Your task to perform on an android device: Open the map Image 0: 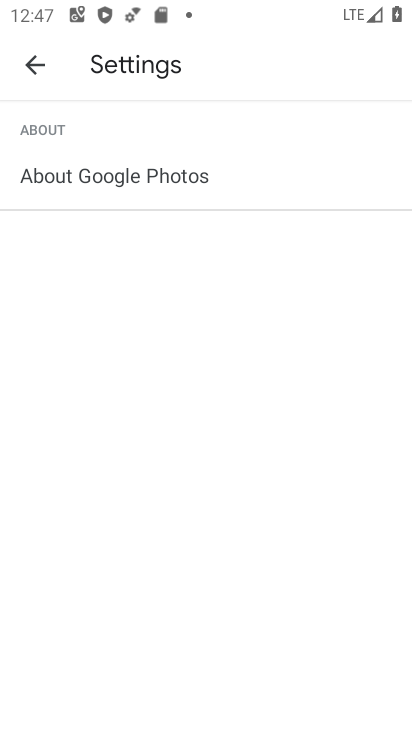
Step 0: press home button
Your task to perform on an android device: Open the map Image 1: 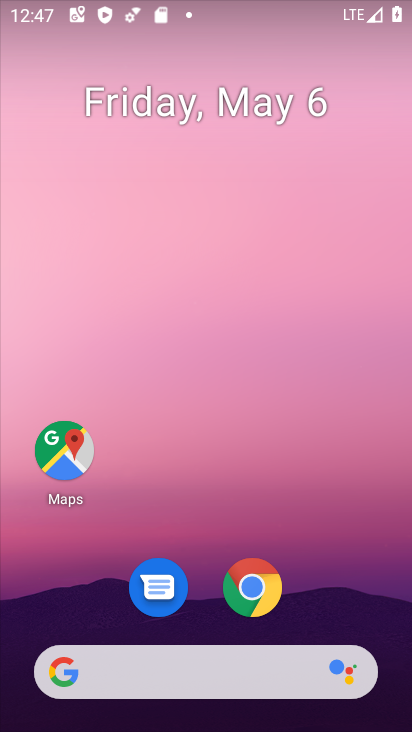
Step 1: click (68, 446)
Your task to perform on an android device: Open the map Image 2: 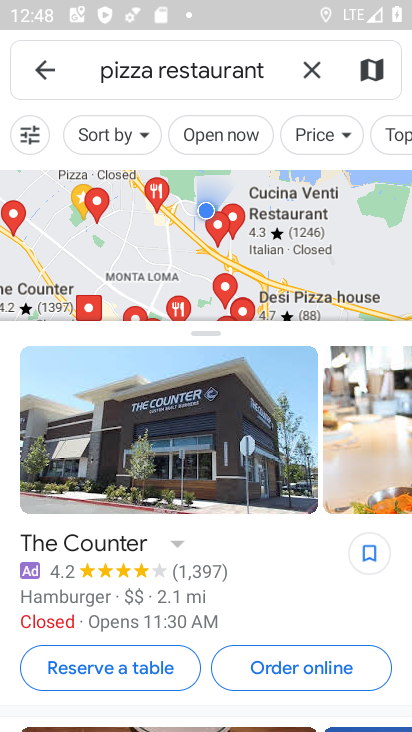
Step 2: task complete